Your task to perform on an android device: Check the news Image 0: 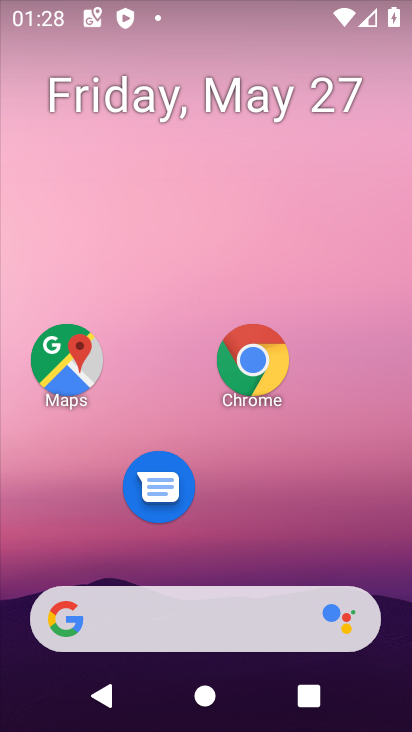
Step 0: drag from (259, 522) to (297, 64)
Your task to perform on an android device: Check the news Image 1: 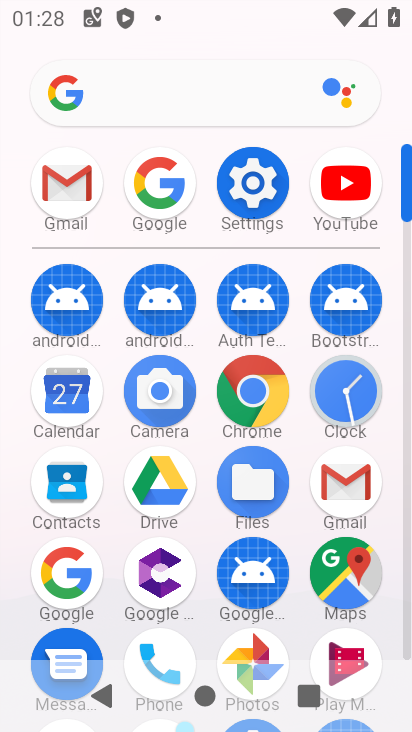
Step 1: click (160, 182)
Your task to perform on an android device: Check the news Image 2: 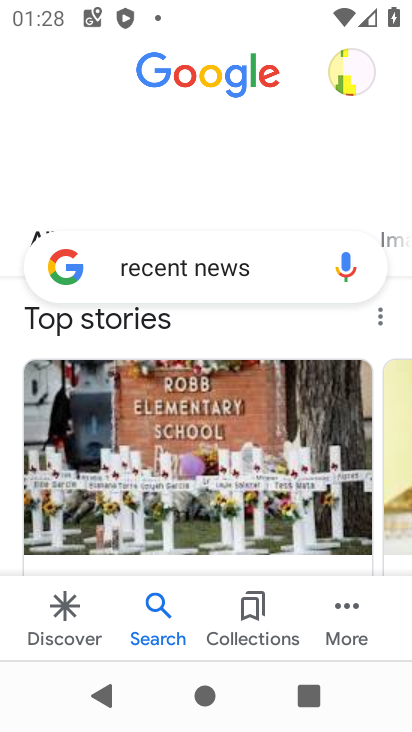
Step 2: click (266, 271)
Your task to perform on an android device: Check the news Image 3: 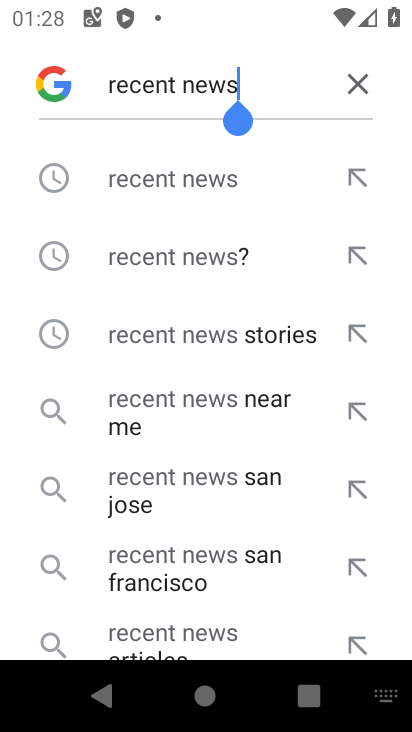
Step 3: click (358, 89)
Your task to perform on an android device: Check the news Image 4: 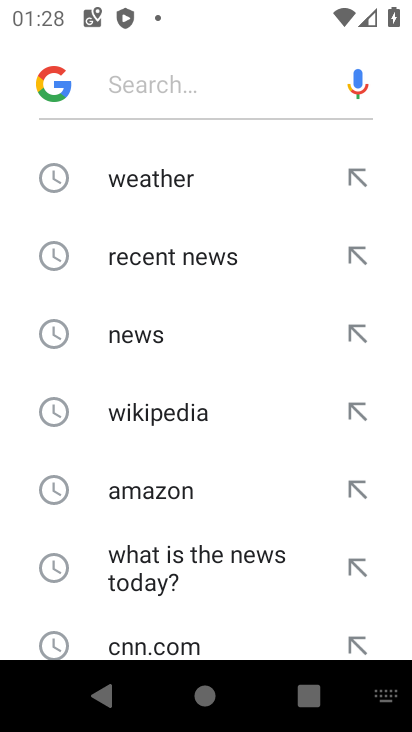
Step 4: click (168, 346)
Your task to perform on an android device: Check the news Image 5: 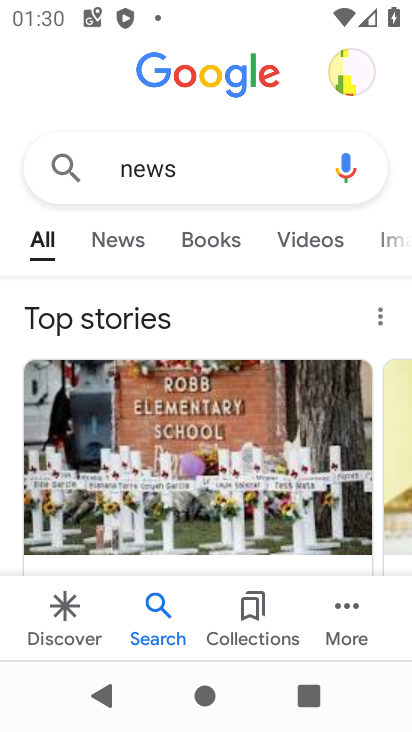
Step 5: task complete